Your task to perform on an android device: turn on wifi Image 0: 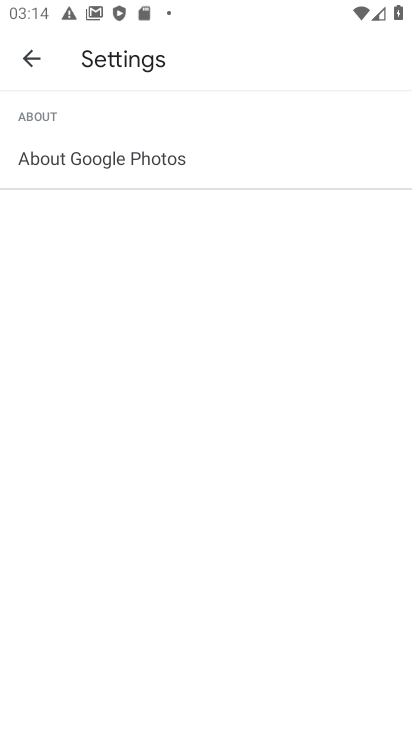
Step 0: press home button
Your task to perform on an android device: turn on wifi Image 1: 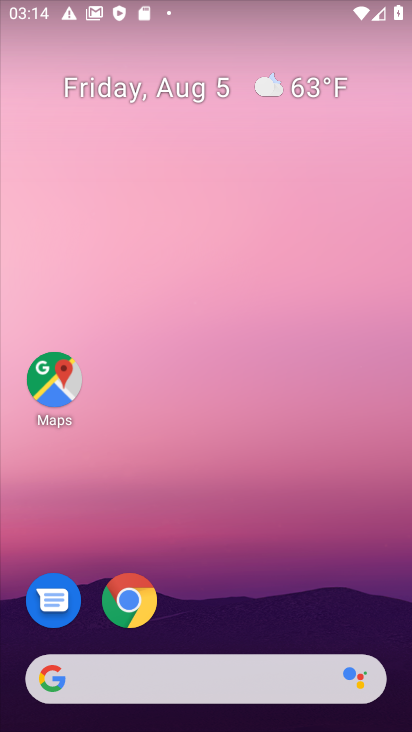
Step 1: drag from (205, 678) to (196, 148)
Your task to perform on an android device: turn on wifi Image 2: 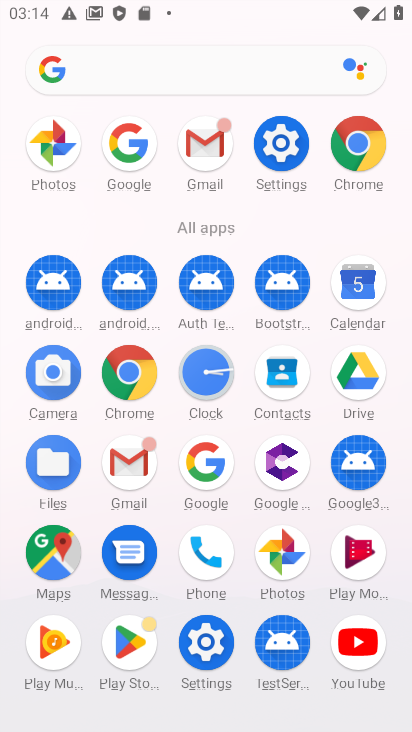
Step 2: click (280, 143)
Your task to perform on an android device: turn on wifi Image 3: 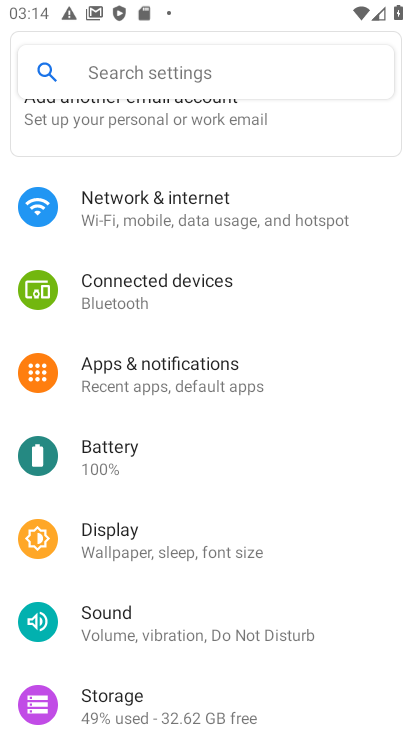
Step 3: drag from (191, 181) to (214, 288)
Your task to perform on an android device: turn on wifi Image 4: 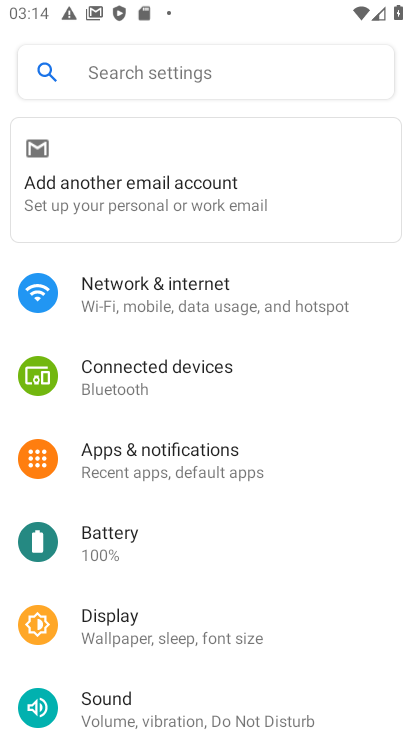
Step 4: click (200, 296)
Your task to perform on an android device: turn on wifi Image 5: 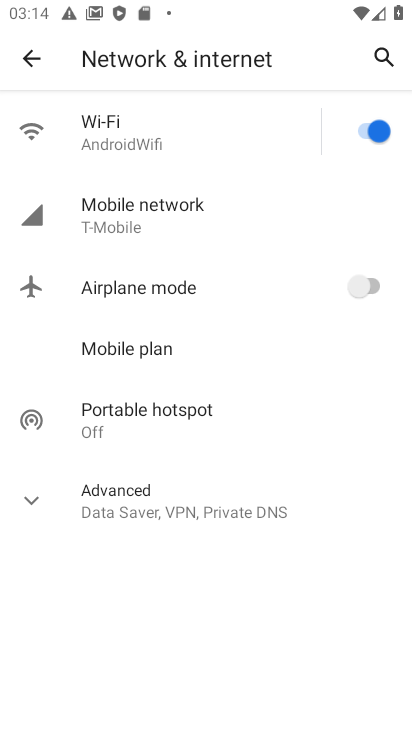
Step 5: task complete